Your task to perform on an android device: toggle notification dots Image 0: 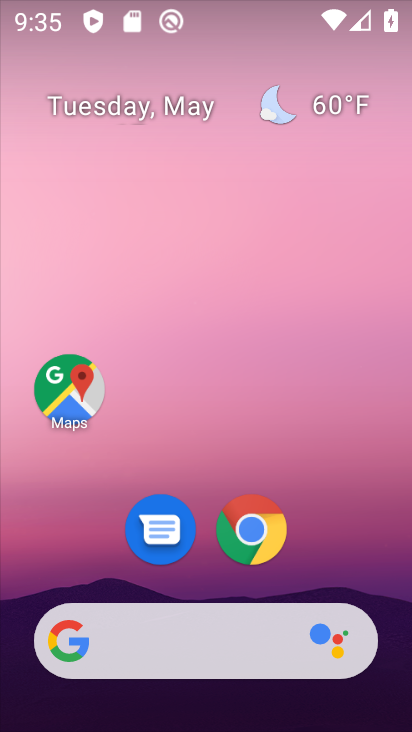
Step 0: drag from (226, 603) to (215, 245)
Your task to perform on an android device: toggle notification dots Image 1: 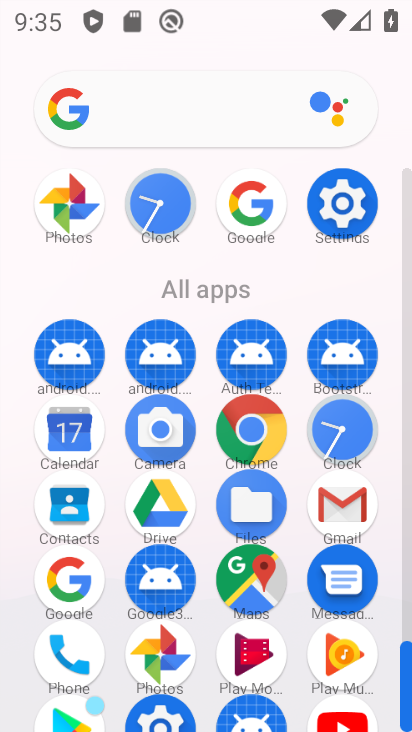
Step 1: click (333, 215)
Your task to perform on an android device: toggle notification dots Image 2: 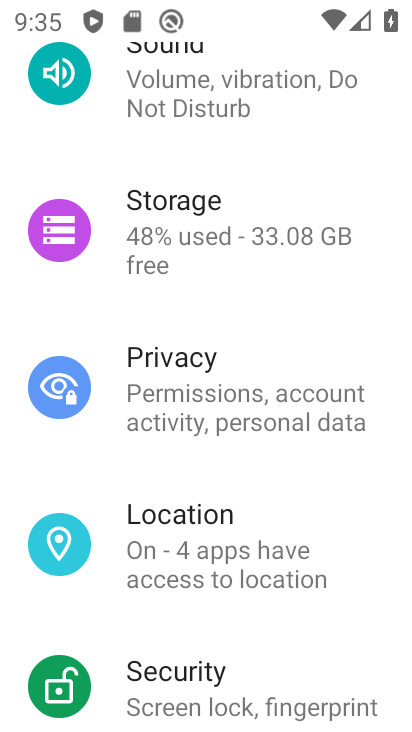
Step 2: drag from (213, 156) to (208, 603)
Your task to perform on an android device: toggle notification dots Image 3: 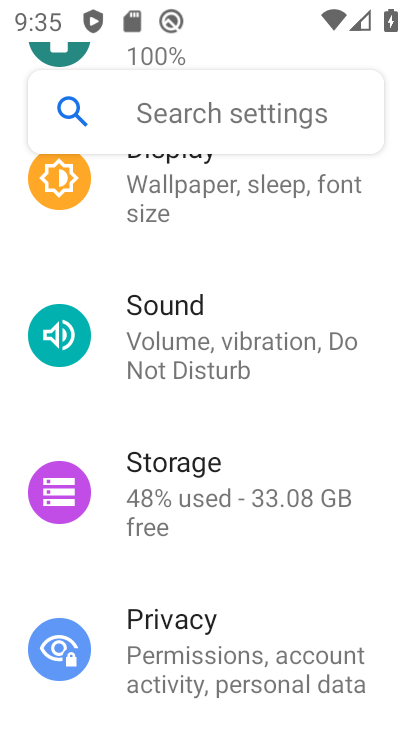
Step 3: drag from (210, 186) to (223, 603)
Your task to perform on an android device: toggle notification dots Image 4: 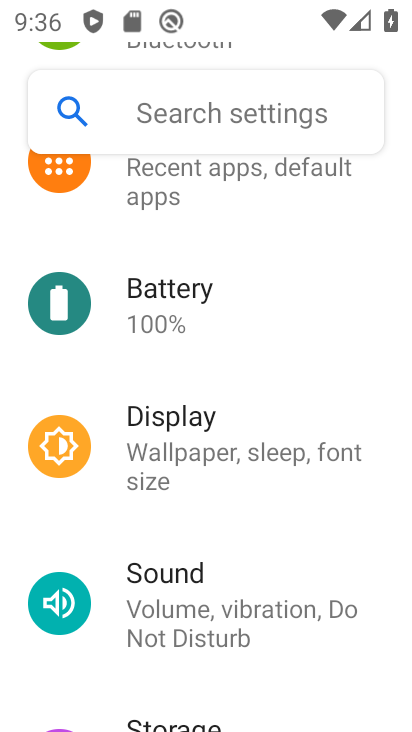
Step 4: drag from (233, 516) to (233, 590)
Your task to perform on an android device: toggle notification dots Image 5: 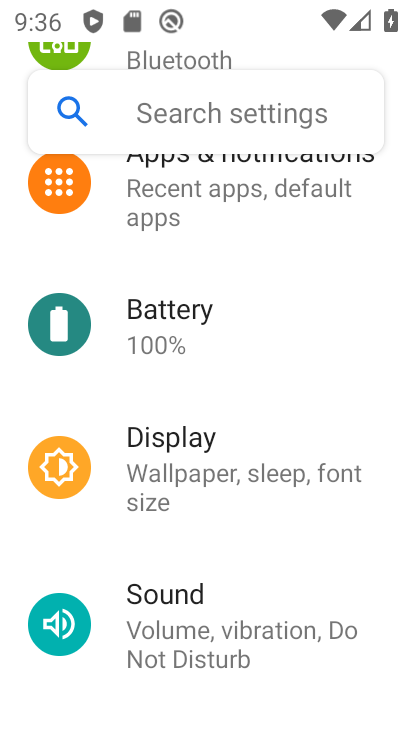
Step 5: drag from (227, 178) to (236, 604)
Your task to perform on an android device: toggle notification dots Image 6: 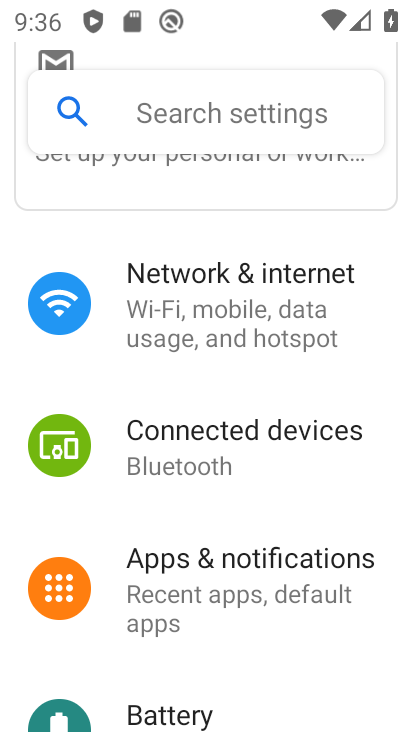
Step 6: click (218, 580)
Your task to perform on an android device: toggle notification dots Image 7: 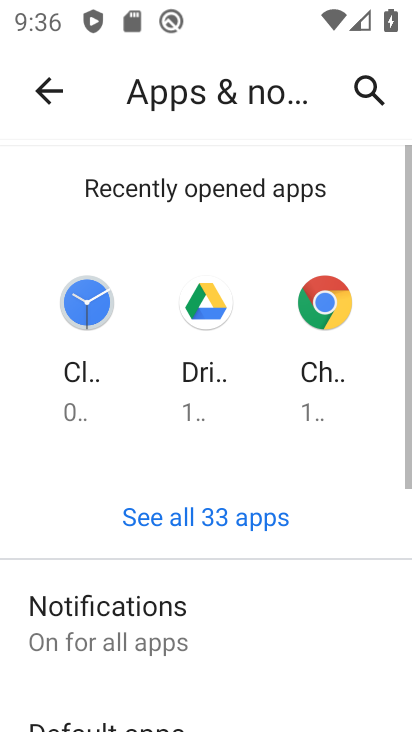
Step 7: click (119, 629)
Your task to perform on an android device: toggle notification dots Image 8: 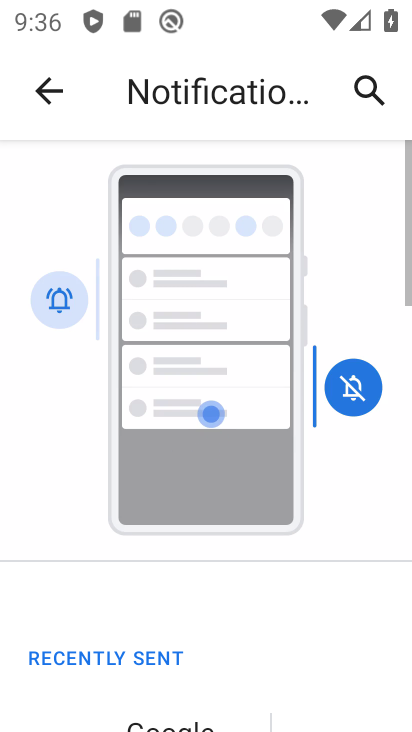
Step 8: drag from (270, 678) to (269, 198)
Your task to perform on an android device: toggle notification dots Image 9: 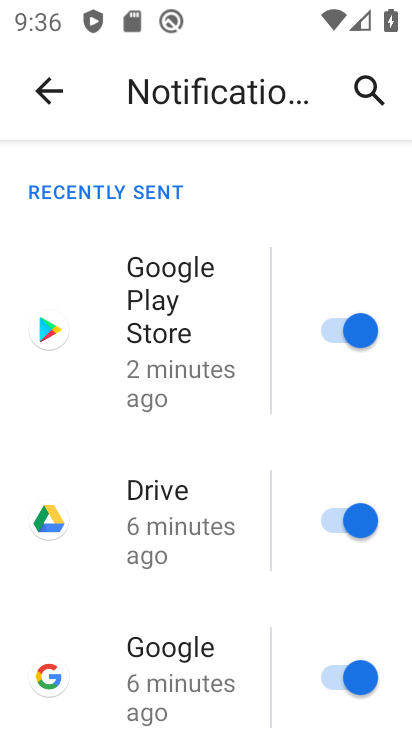
Step 9: drag from (194, 669) to (251, 296)
Your task to perform on an android device: toggle notification dots Image 10: 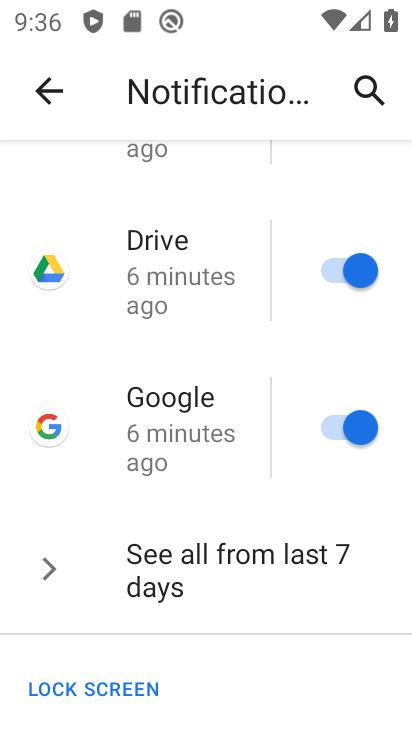
Step 10: drag from (119, 693) to (161, 373)
Your task to perform on an android device: toggle notification dots Image 11: 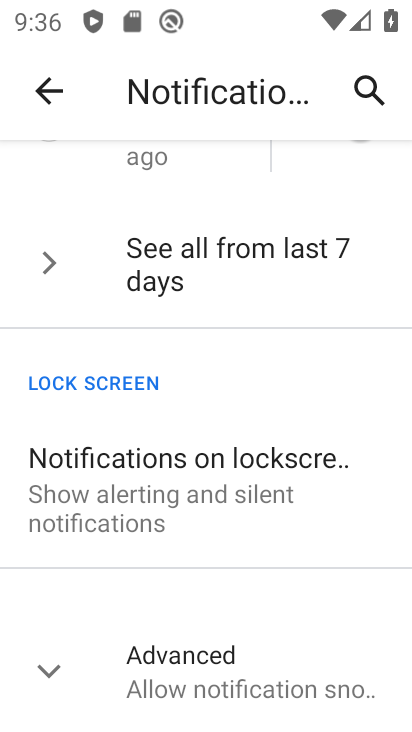
Step 11: click (117, 673)
Your task to perform on an android device: toggle notification dots Image 12: 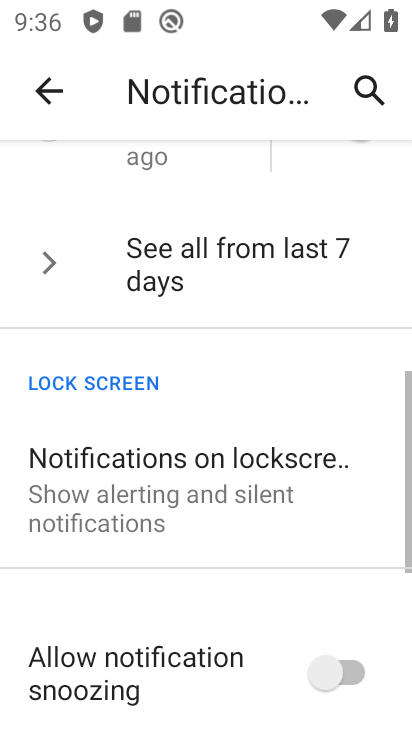
Step 12: drag from (277, 716) to (290, 452)
Your task to perform on an android device: toggle notification dots Image 13: 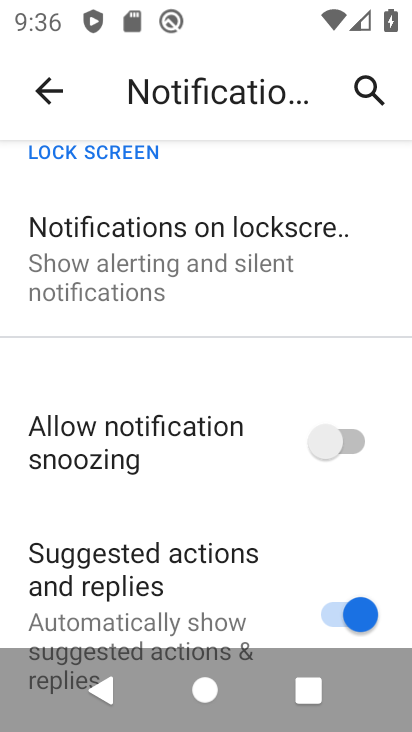
Step 13: drag from (261, 641) to (280, 394)
Your task to perform on an android device: toggle notification dots Image 14: 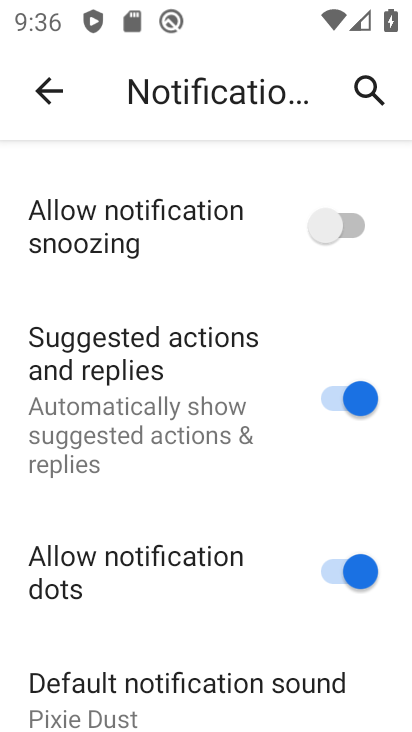
Step 14: click (332, 574)
Your task to perform on an android device: toggle notification dots Image 15: 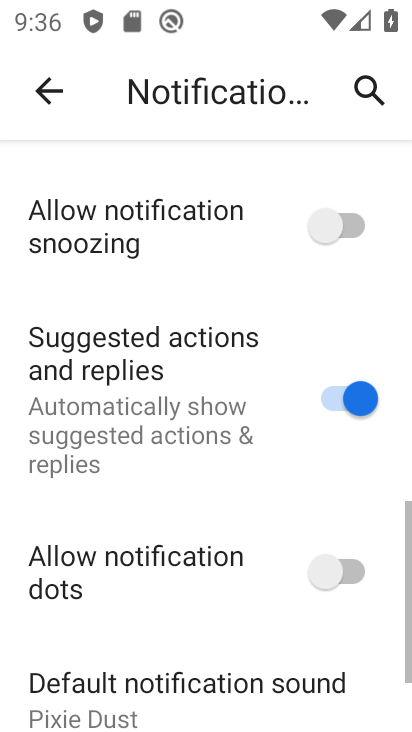
Step 15: task complete